Your task to perform on an android device: create a new album in the google photos Image 0: 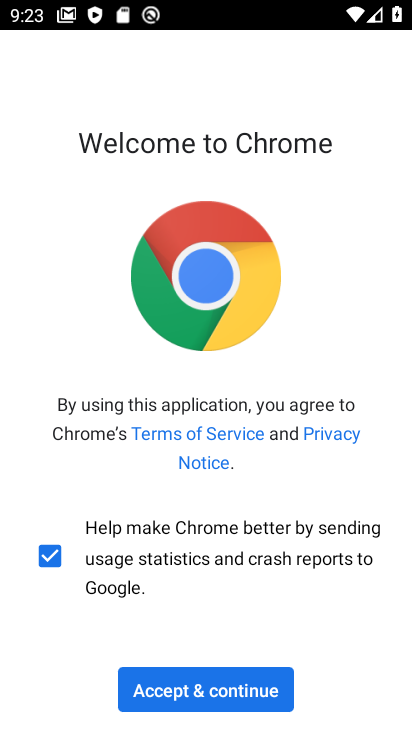
Step 0: click (200, 682)
Your task to perform on an android device: create a new album in the google photos Image 1: 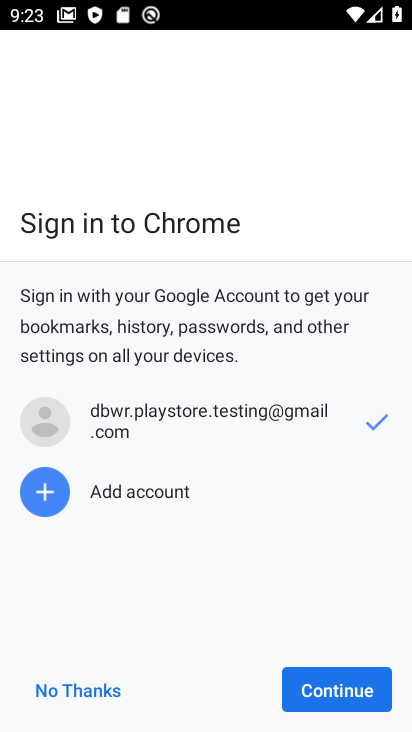
Step 1: click (355, 677)
Your task to perform on an android device: create a new album in the google photos Image 2: 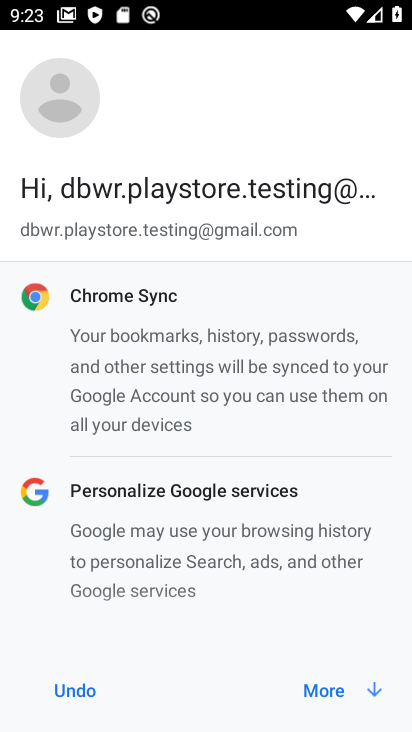
Step 2: click (355, 677)
Your task to perform on an android device: create a new album in the google photos Image 3: 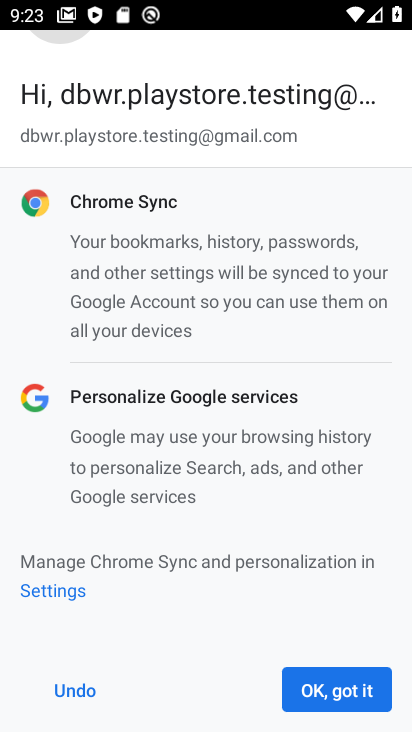
Step 3: click (355, 677)
Your task to perform on an android device: create a new album in the google photos Image 4: 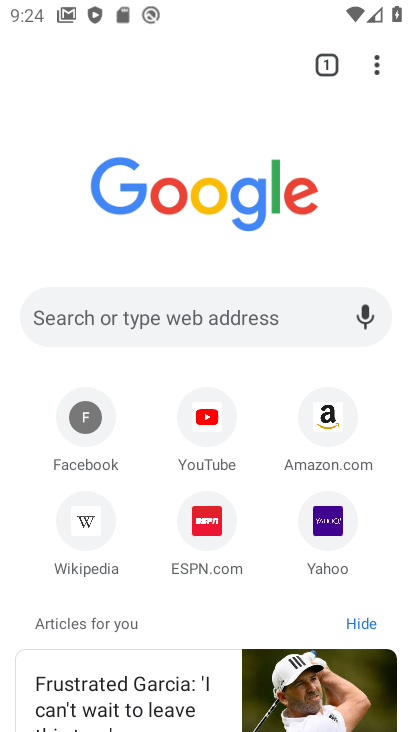
Step 4: press home button
Your task to perform on an android device: create a new album in the google photos Image 5: 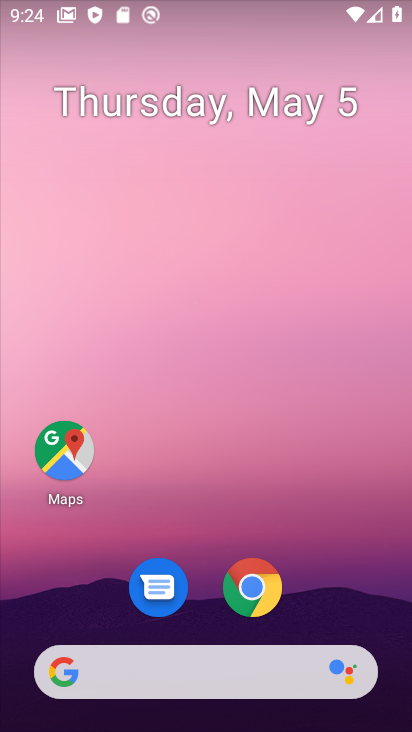
Step 5: drag from (345, 584) to (314, 391)
Your task to perform on an android device: create a new album in the google photos Image 6: 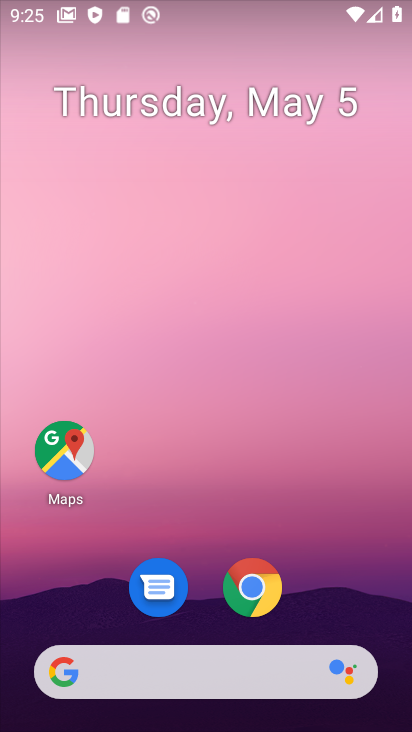
Step 6: drag from (339, 592) to (373, 30)
Your task to perform on an android device: create a new album in the google photos Image 7: 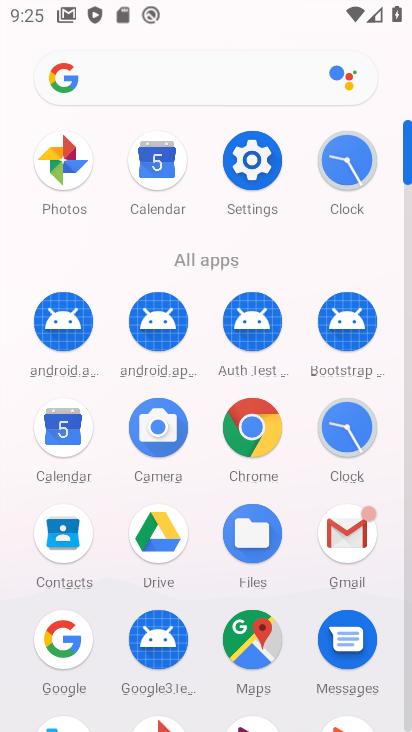
Step 7: click (71, 167)
Your task to perform on an android device: create a new album in the google photos Image 8: 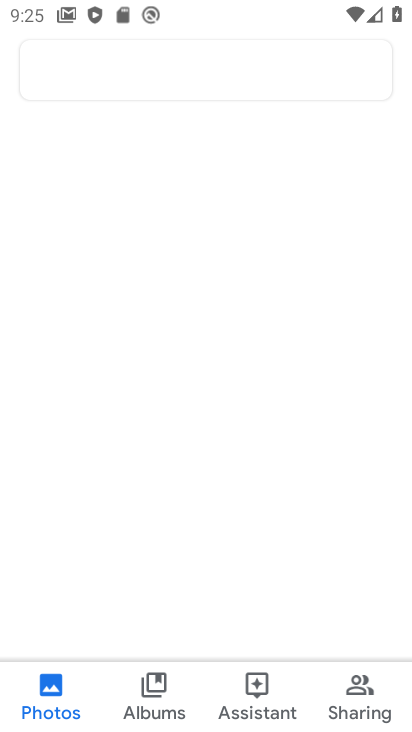
Step 8: click (76, 161)
Your task to perform on an android device: create a new album in the google photos Image 9: 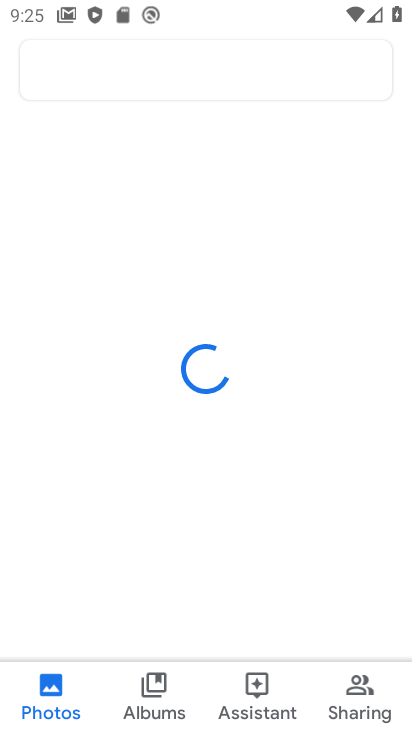
Step 9: click (71, 167)
Your task to perform on an android device: create a new album in the google photos Image 10: 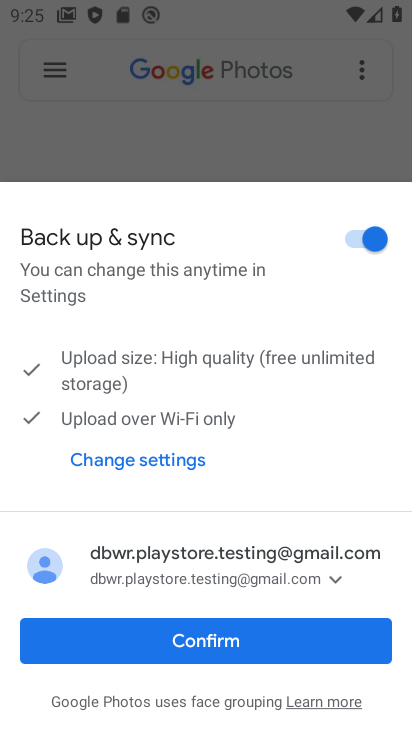
Step 10: click (224, 632)
Your task to perform on an android device: create a new album in the google photos Image 11: 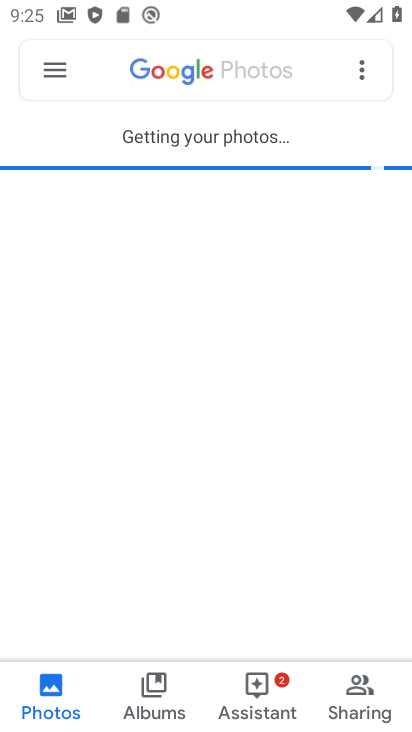
Step 11: click (224, 632)
Your task to perform on an android device: create a new album in the google photos Image 12: 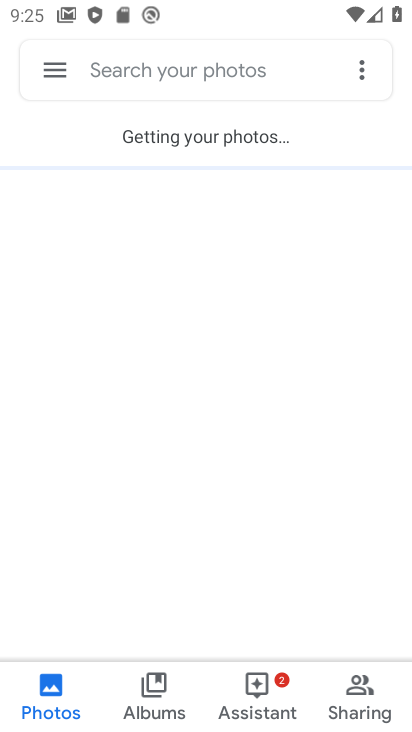
Step 12: click (218, 77)
Your task to perform on an android device: create a new album in the google photos Image 13: 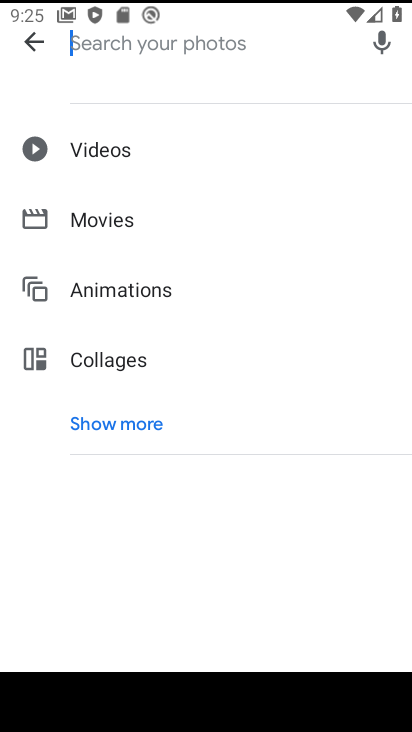
Step 13: click (35, 38)
Your task to perform on an android device: create a new album in the google photos Image 14: 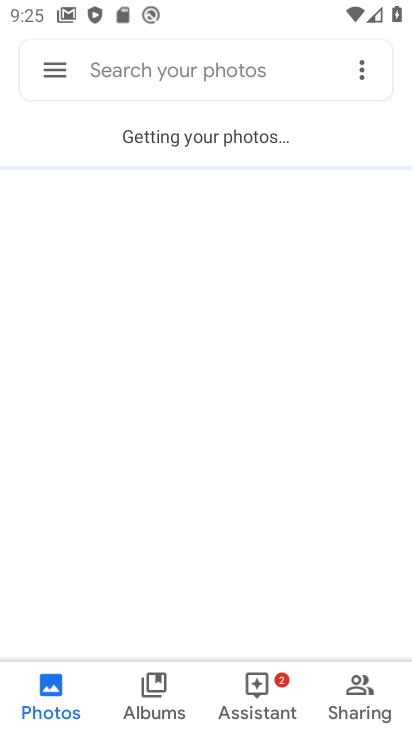
Step 14: click (153, 667)
Your task to perform on an android device: create a new album in the google photos Image 15: 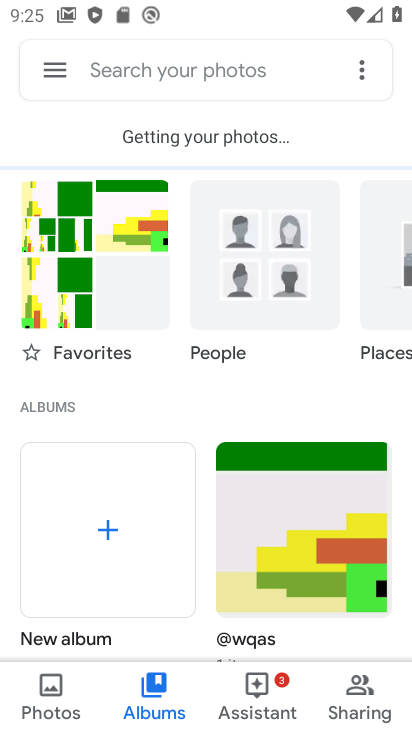
Step 15: click (98, 539)
Your task to perform on an android device: create a new album in the google photos Image 16: 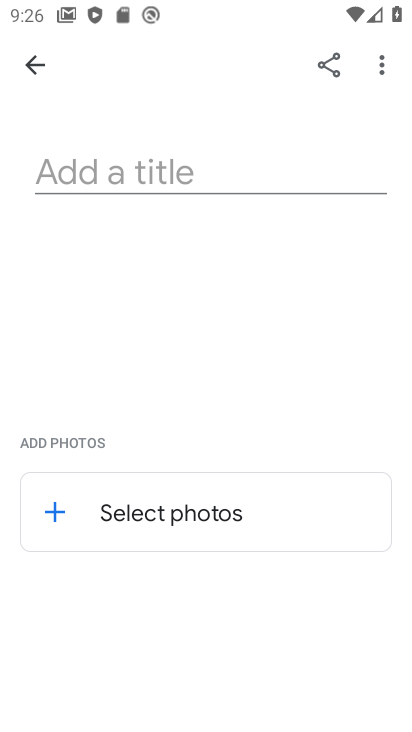
Step 16: click (146, 185)
Your task to perform on an android device: create a new album in the google photos Image 17: 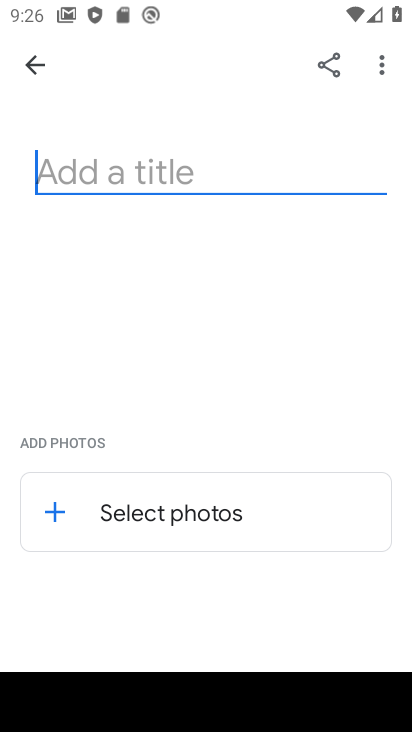
Step 17: type "ddfdt"
Your task to perform on an android device: create a new album in the google photos Image 18: 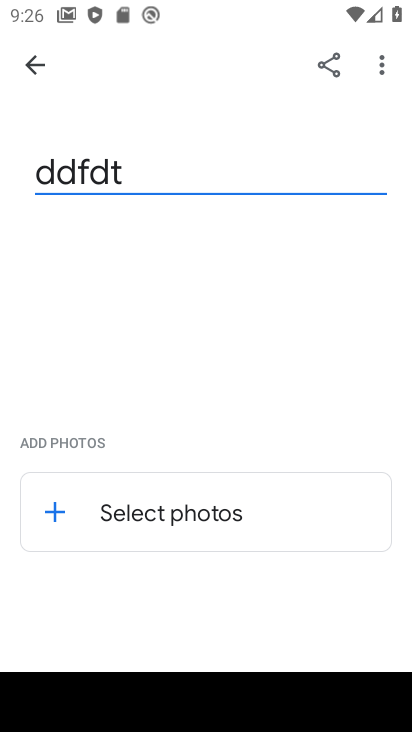
Step 18: click (41, 506)
Your task to perform on an android device: create a new album in the google photos Image 19: 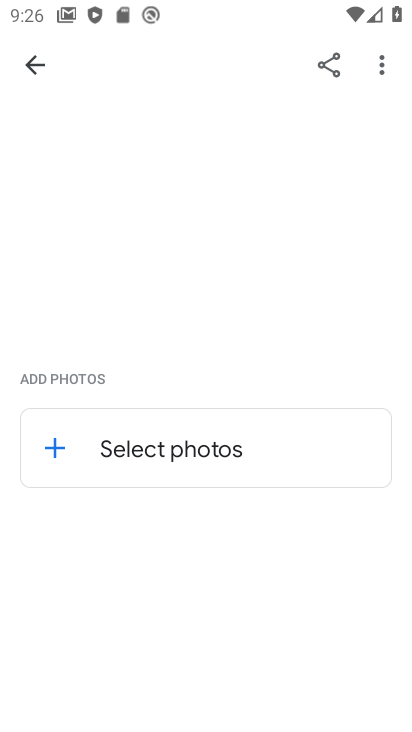
Step 19: click (62, 467)
Your task to perform on an android device: create a new album in the google photos Image 20: 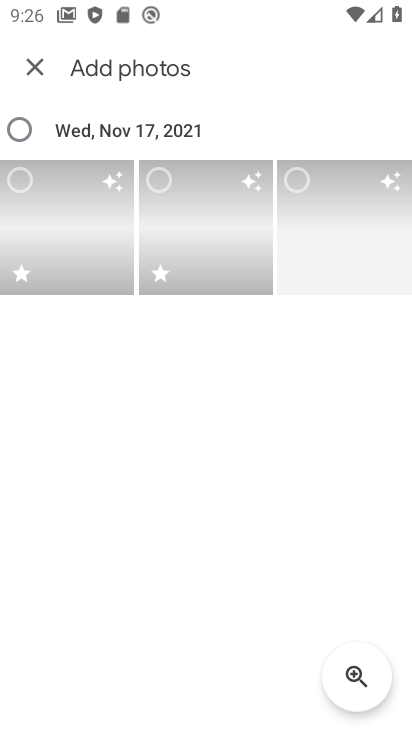
Step 20: click (366, 197)
Your task to perform on an android device: create a new album in the google photos Image 21: 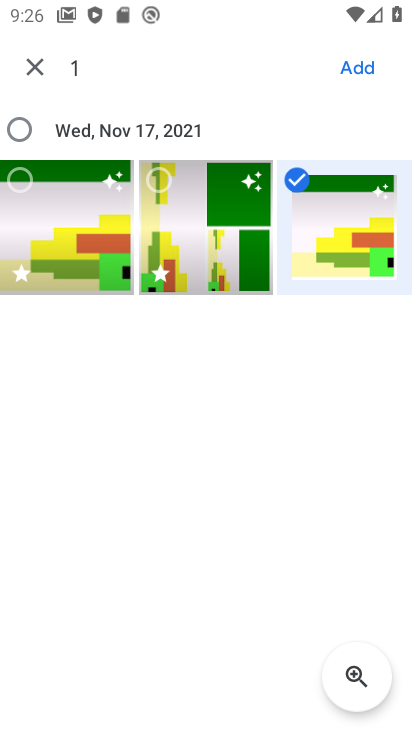
Step 21: click (30, 133)
Your task to perform on an android device: create a new album in the google photos Image 22: 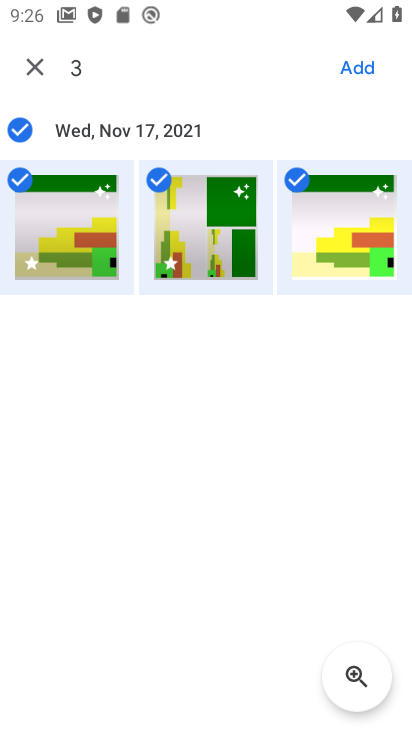
Step 22: click (354, 67)
Your task to perform on an android device: create a new album in the google photos Image 23: 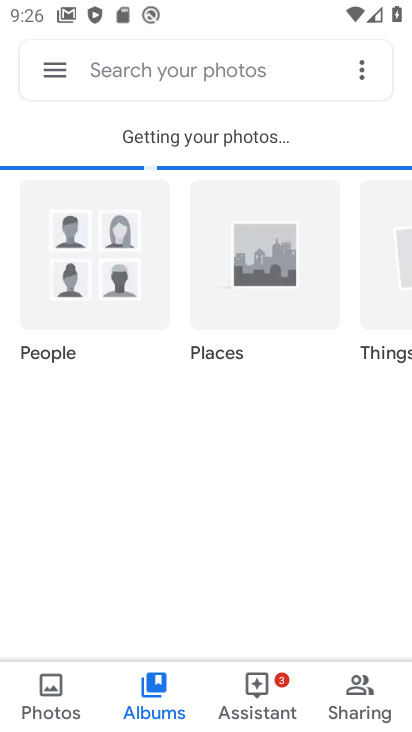
Step 23: task complete